Your task to perform on an android device: Do I have any events this weekend? Image 0: 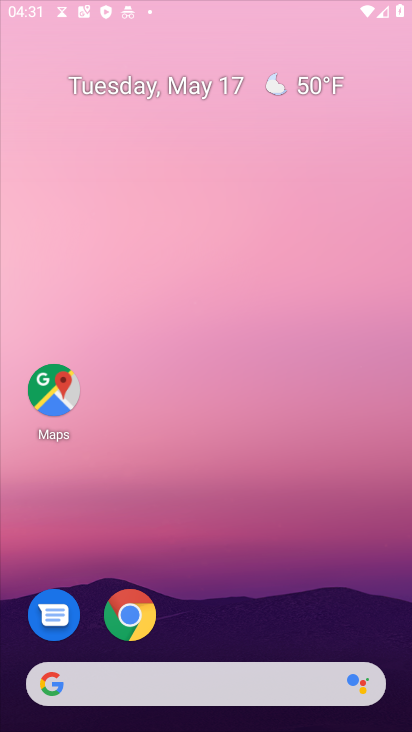
Step 0: click (236, 118)
Your task to perform on an android device: Do I have any events this weekend? Image 1: 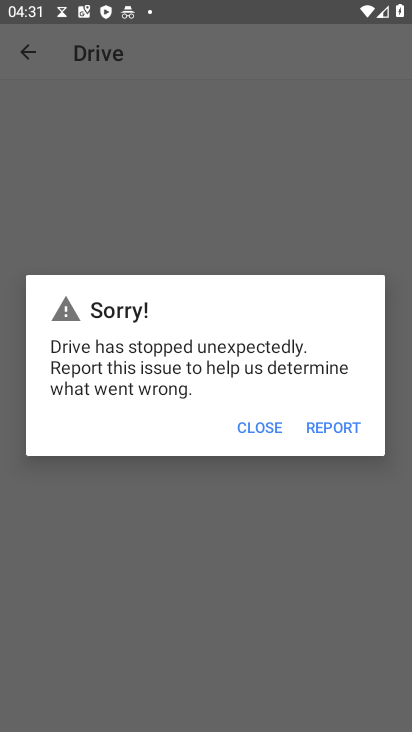
Step 1: click (270, 420)
Your task to perform on an android device: Do I have any events this weekend? Image 2: 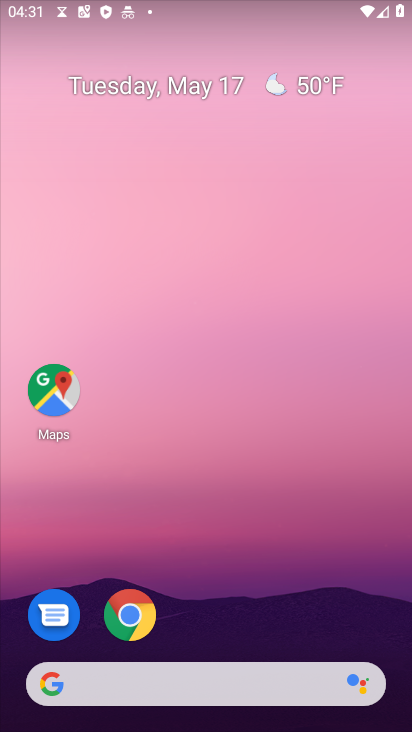
Step 2: drag from (245, 694) to (181, 193)
Your task to perform on an android device: Do I have any events this weekend? Image 3: 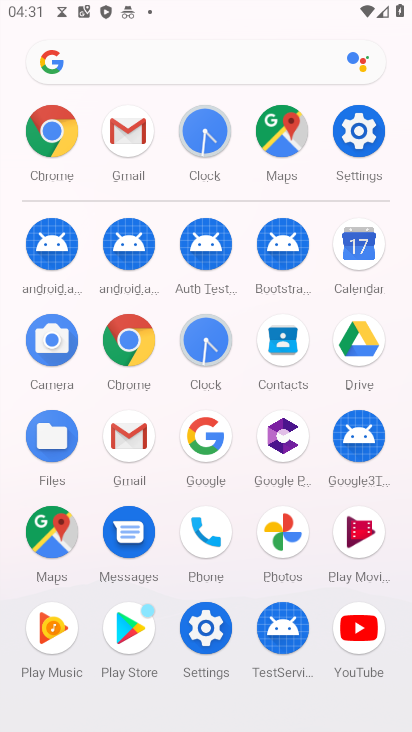
Step 3: click (358, 240)
Your task to perform on an android device: Do I have any events this weekend? Image 4: 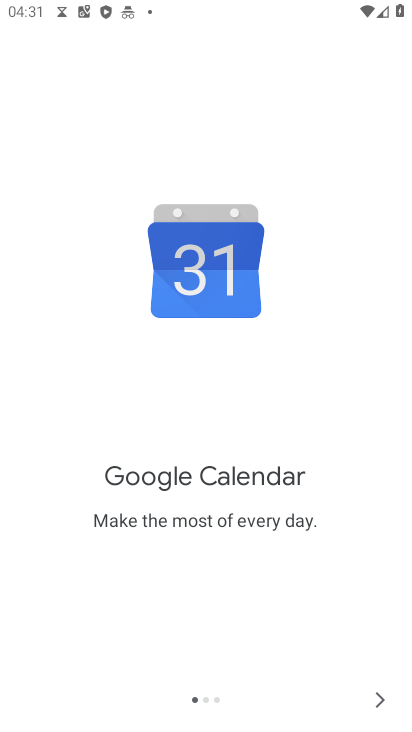
Step 4: click (384, 696)
Your task to perform on an android device: Do I have any events this weekend? Image 5: 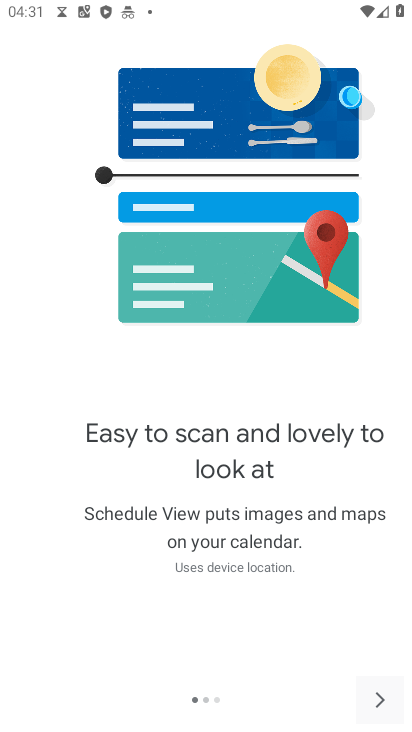
Step 5: click (384, 696)
Your task to perform on an android device: Do I have any events this weekend? Image 6: 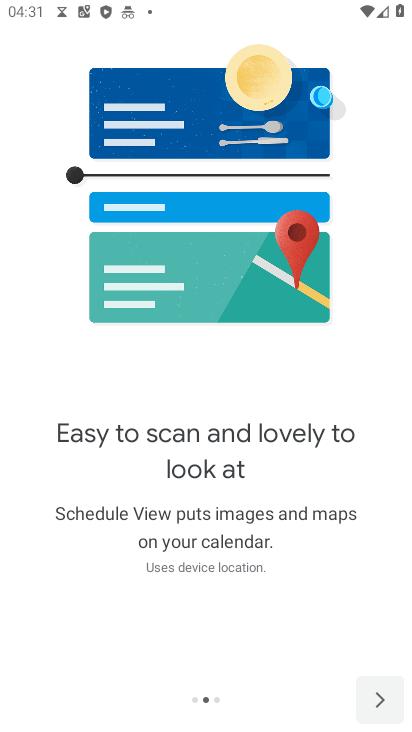
Step 6: click (384, 696)
Your task to perform on an android device: Do I have any events this weekend? Image 7: 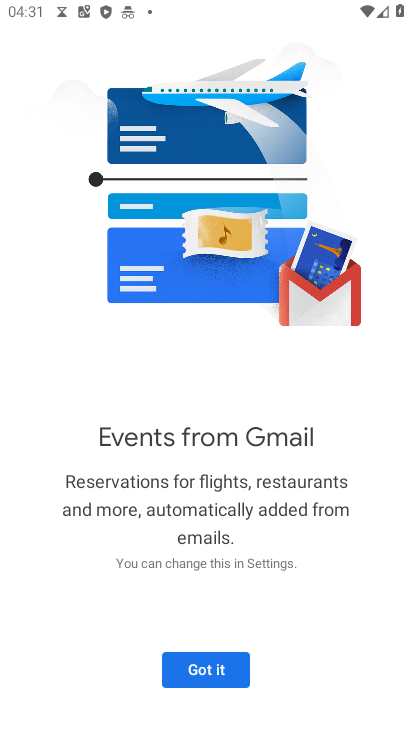
Step 7: click (384, 696)
Your task to perform on an android device: Do I have any events this weekend? Image 8: 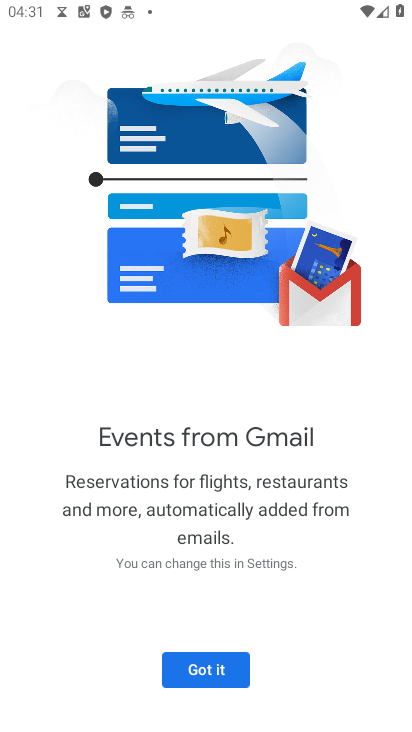
Step 8: click (242, 664)
Your task to perform on an android device: Do I have any events this weekend? Image 9: 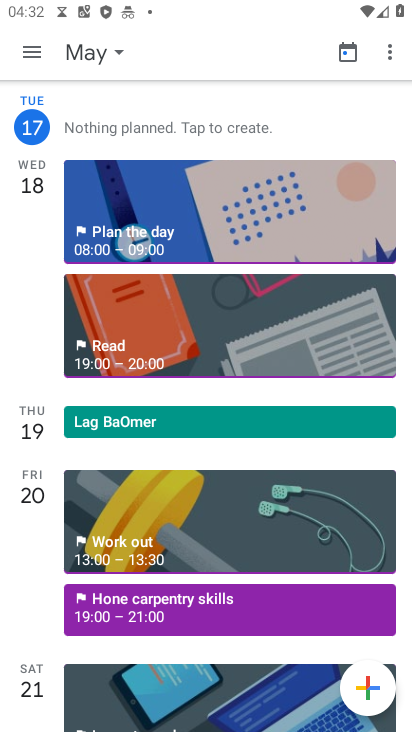
Step 9: click (130, 510)
Your task to perform on an android device: Do I have any events this weekend? Image 10: 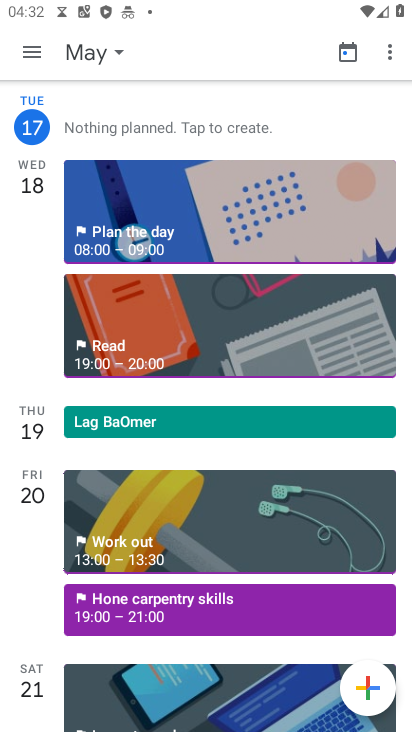
Step 10: click (130, 510)
Your task to perform on an android device: Do I have any events this weekend? Image 11: 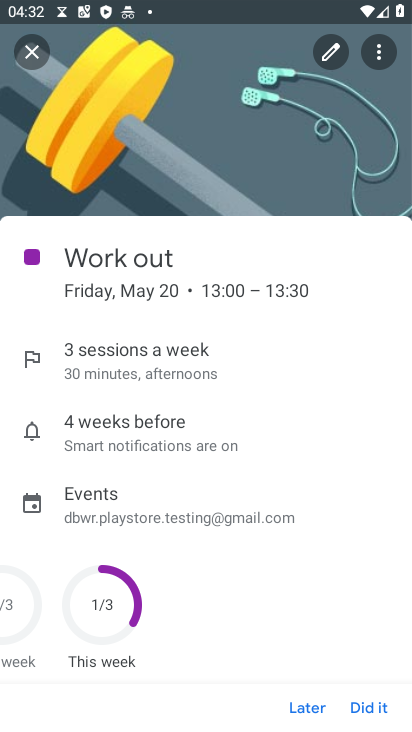
Step 11: task complete